Your task to perform on an android device: How much does the LG TV cost? Image 0: 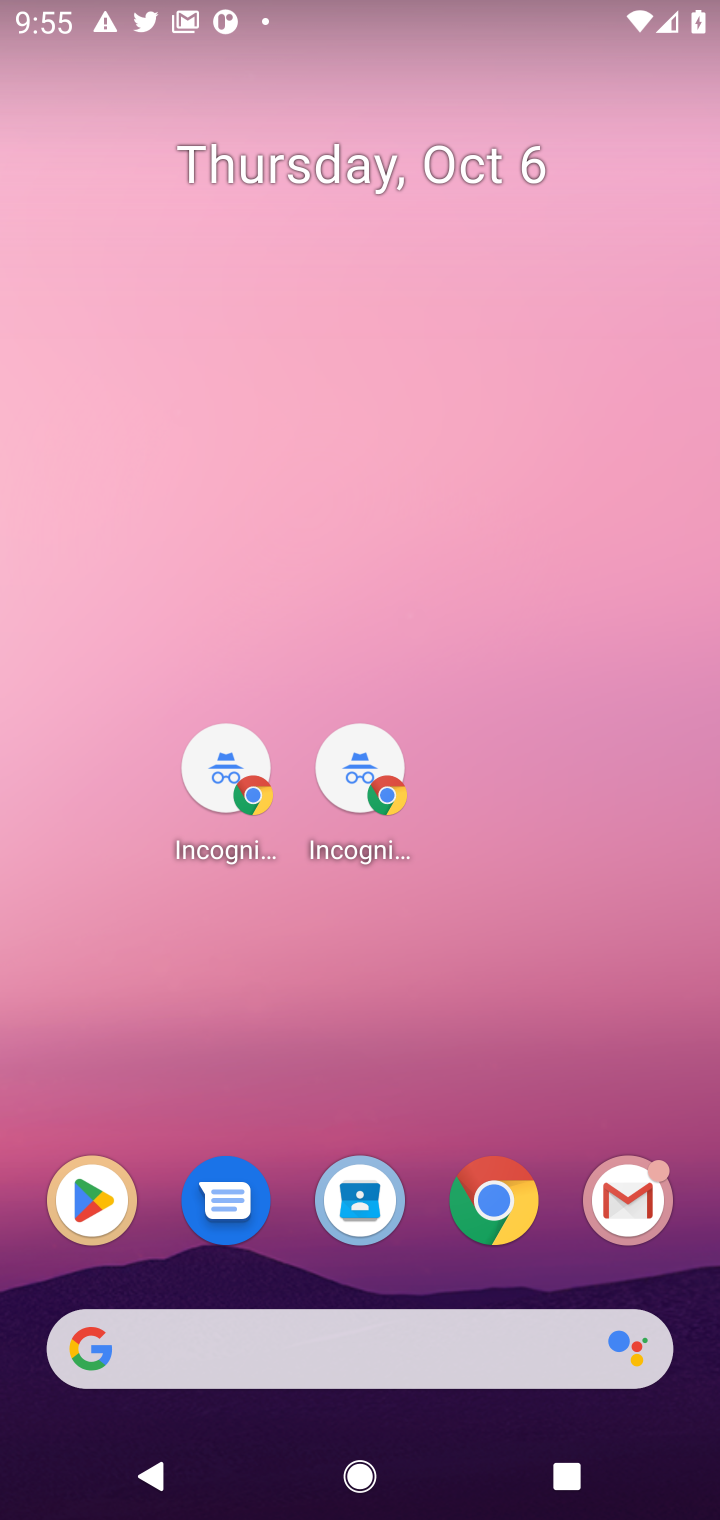
Step 0: press back button
Your task to perform on an android device: How much does the LG TV cost? Image 1: 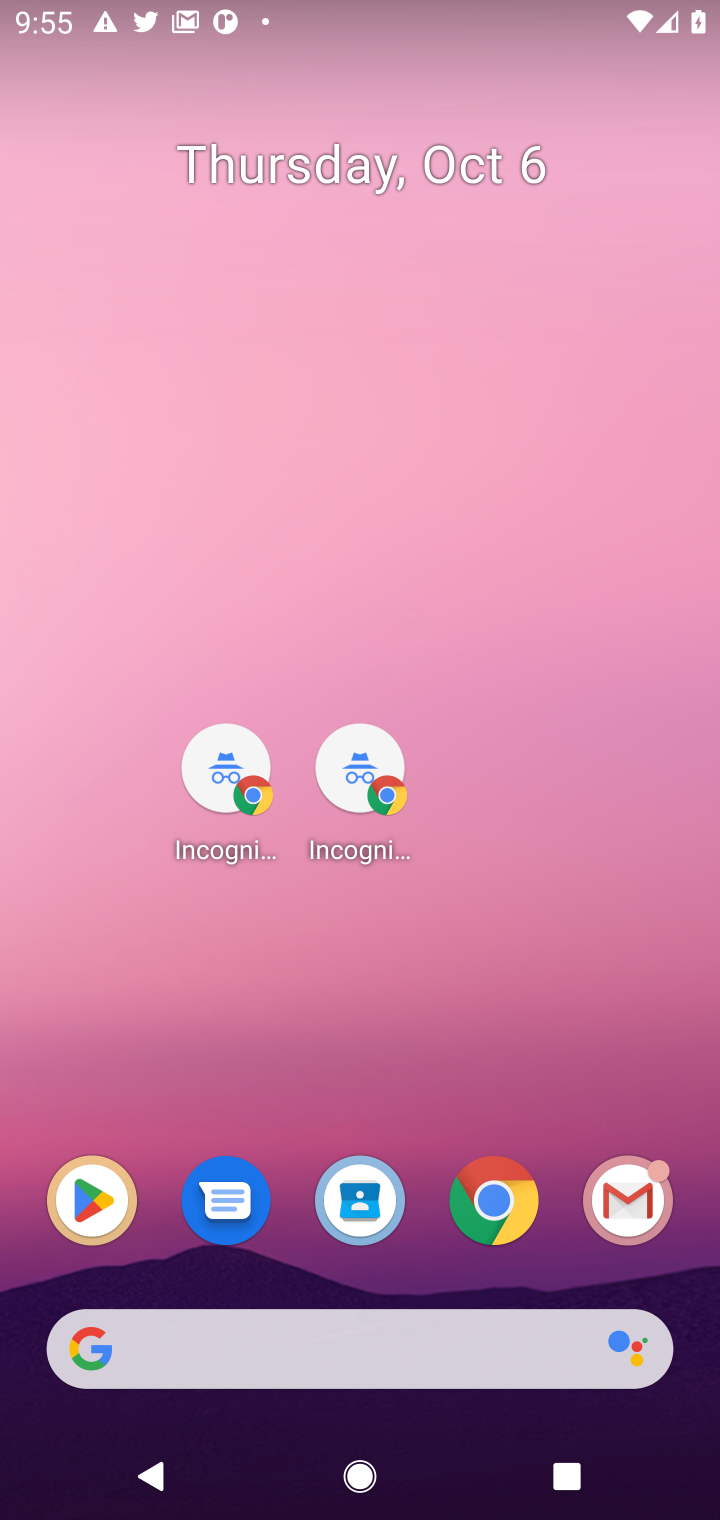
Step 1: press home button
Your task to perform on an android device: How much does the LG TV cost? Image 2: 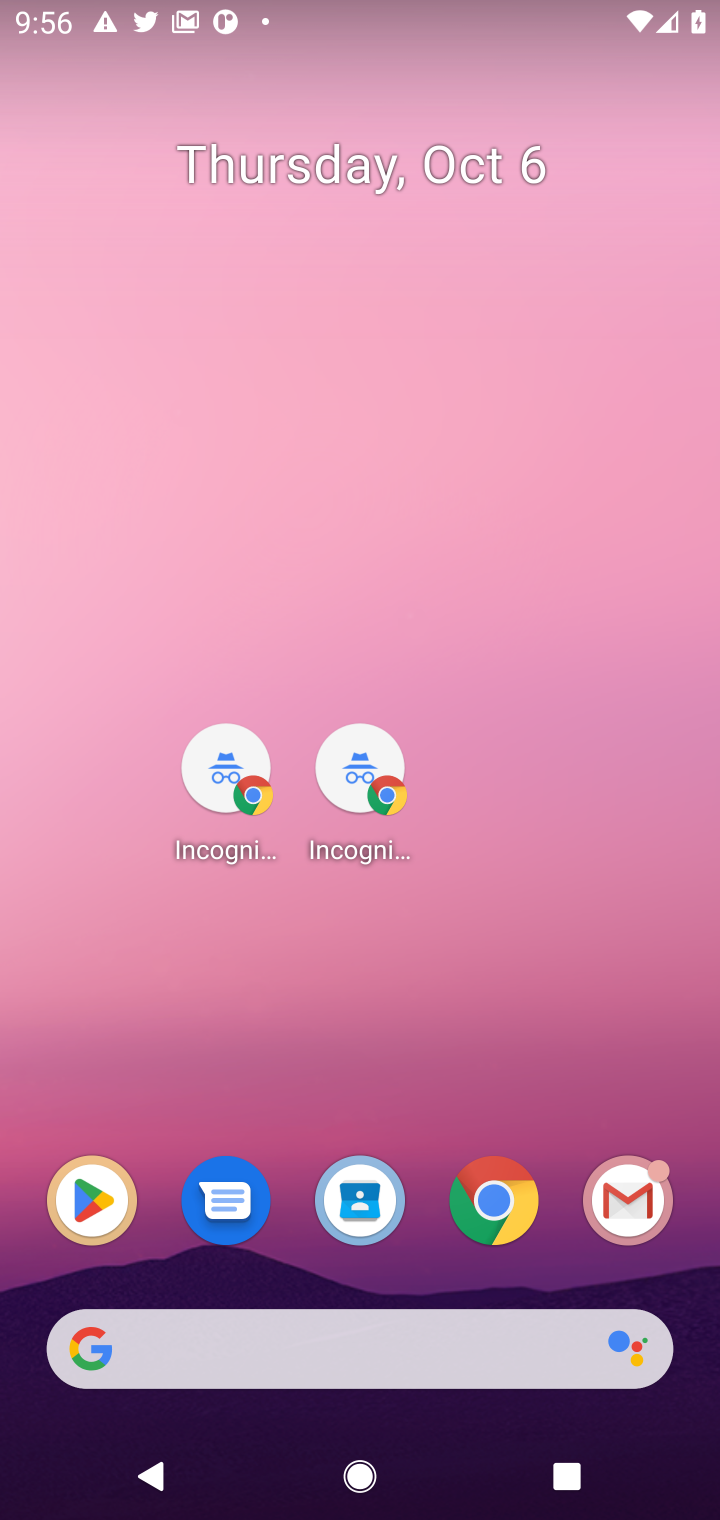
Step 2: click (487, 1202)
Your task to perform on an android device: How much does the LG TV cost? Image 3: 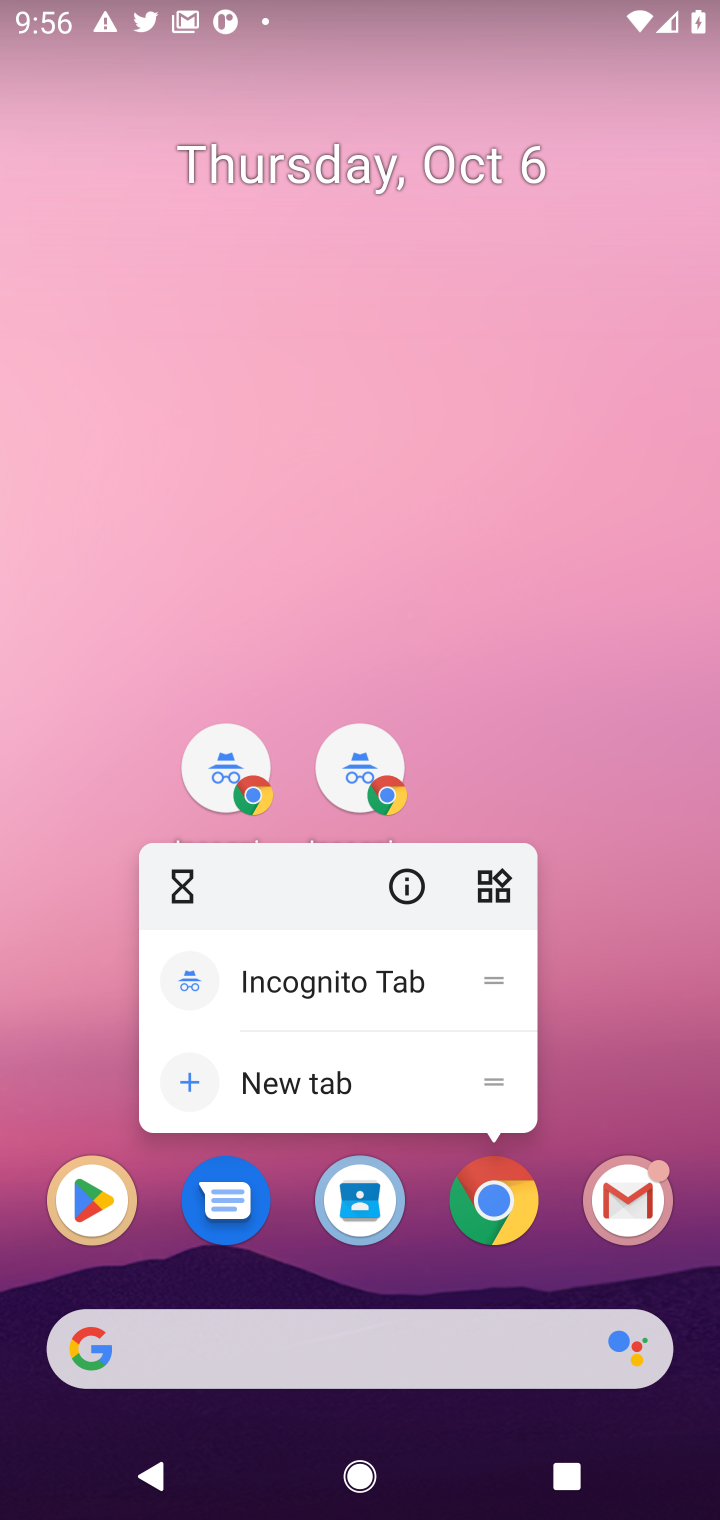
Step 3: press back button
Your task to perform on an android device: How much does the LG TV cost? Image 4: 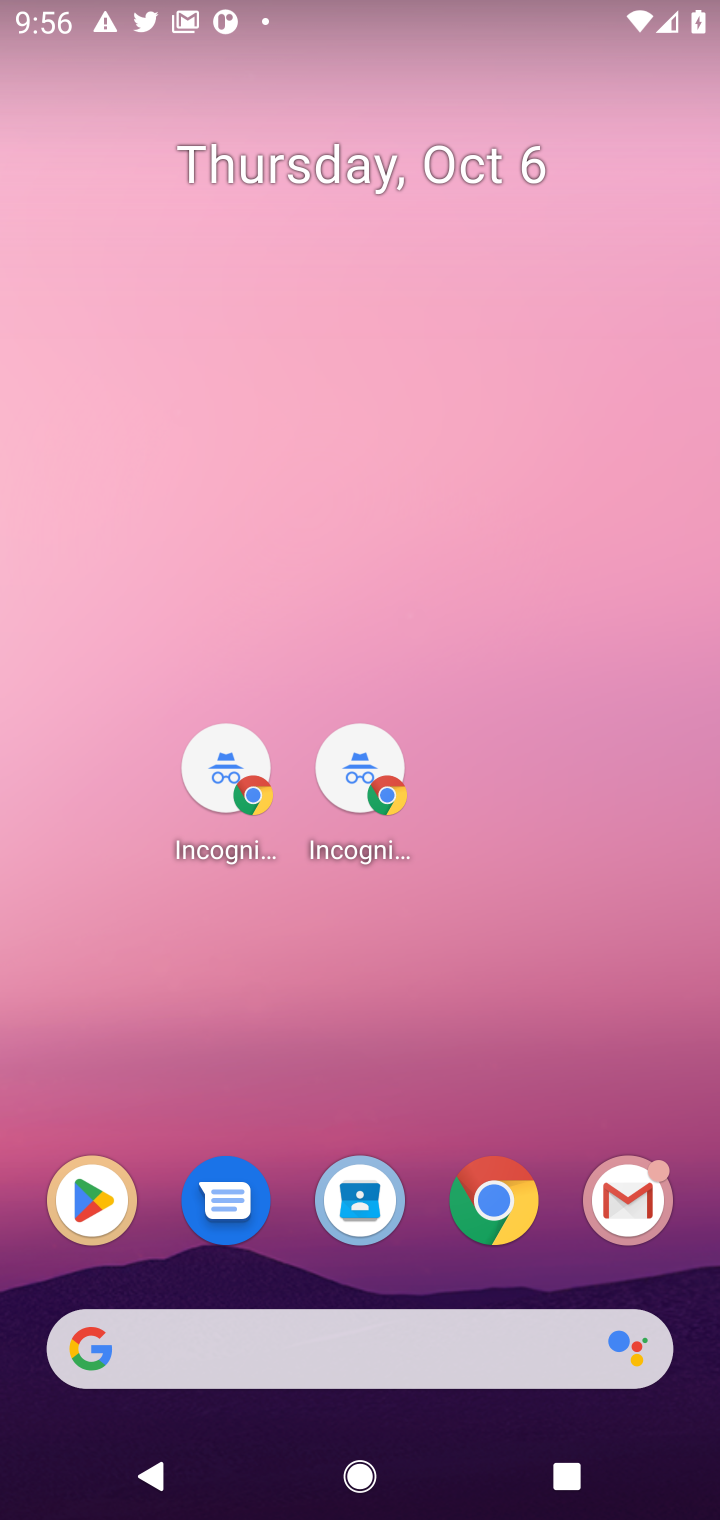
Step 4: press home button
Your task to perform on an android device: How much does the LG TV cost? Image 5: 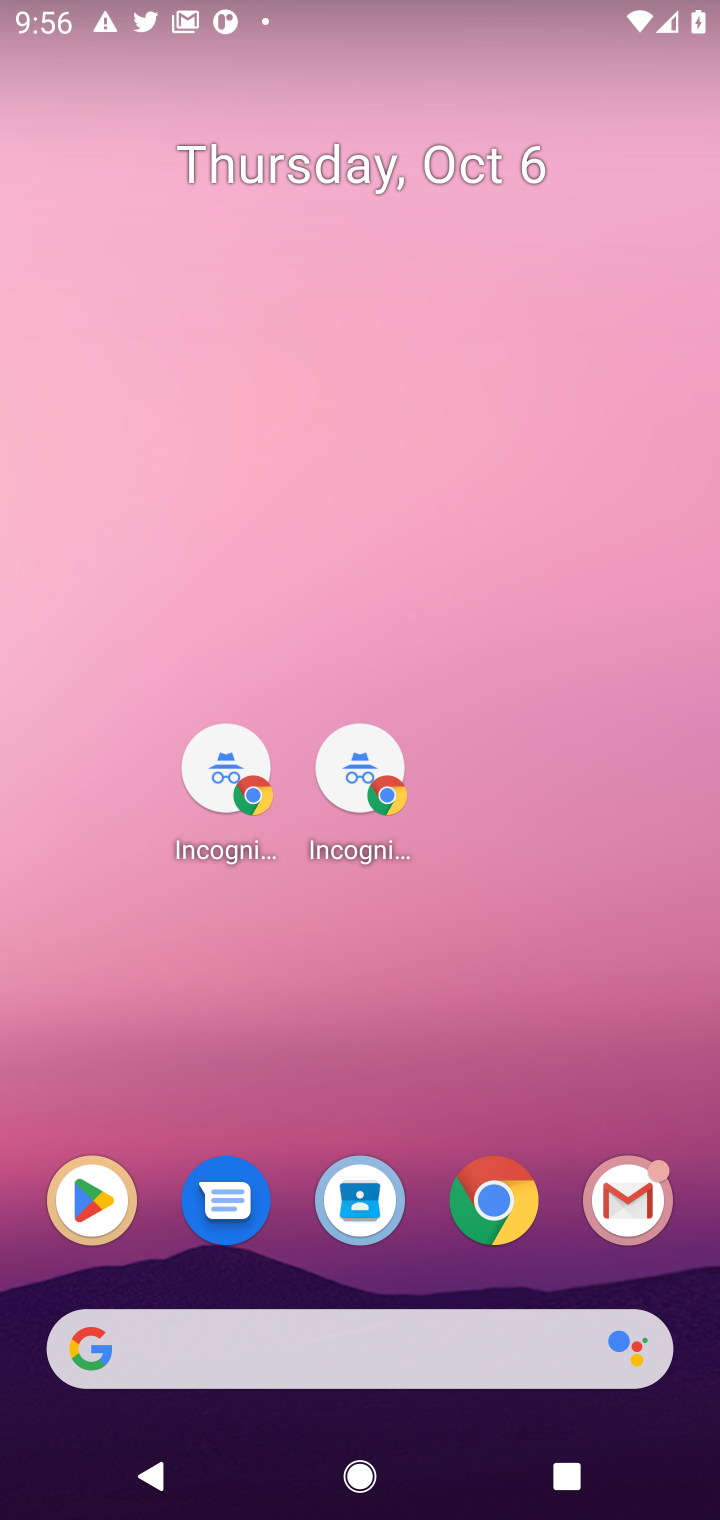
Step 5: press home button
Your task to perform on an android device: How much does the LG TV cost? Image 6: 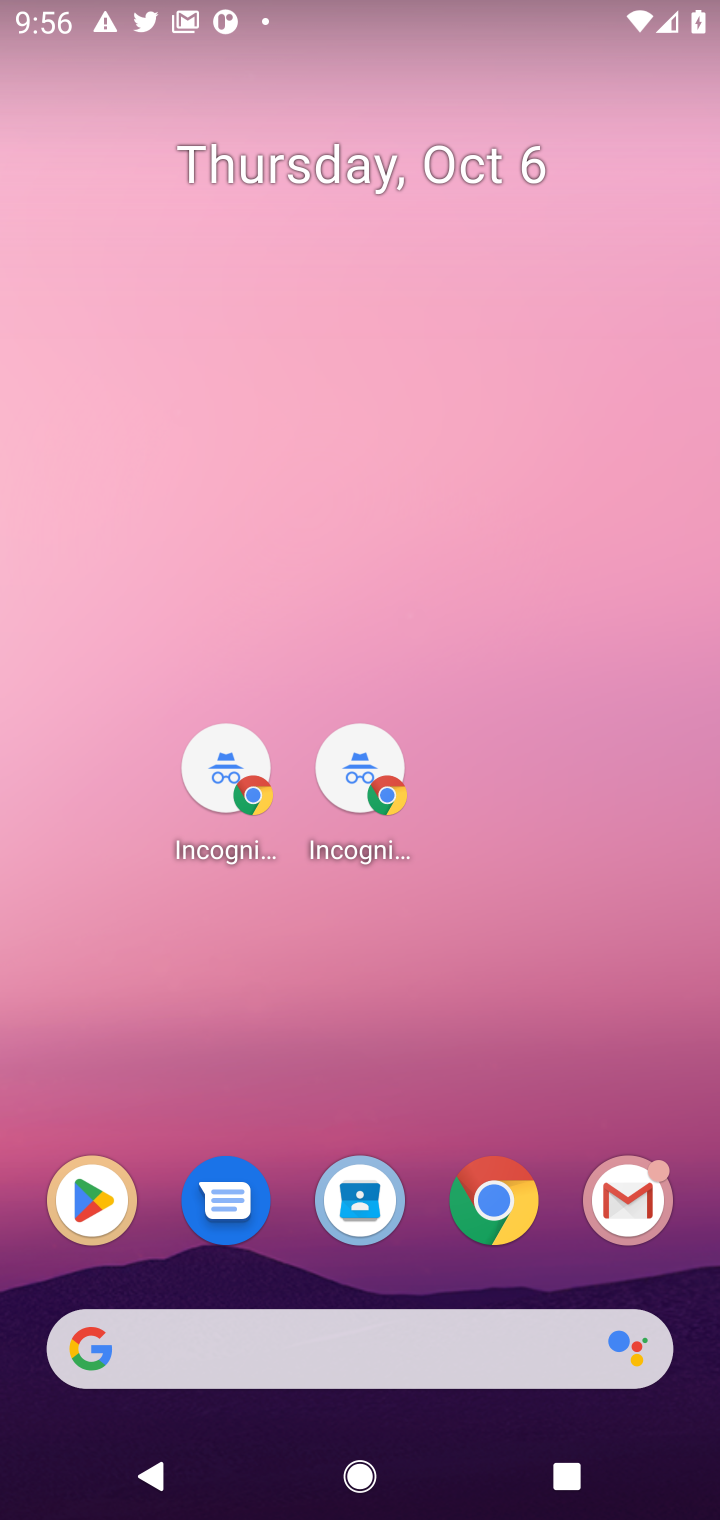
Step 6: press back button
Your task to perform on an android device: How much does the LG TV cost? Image 7: 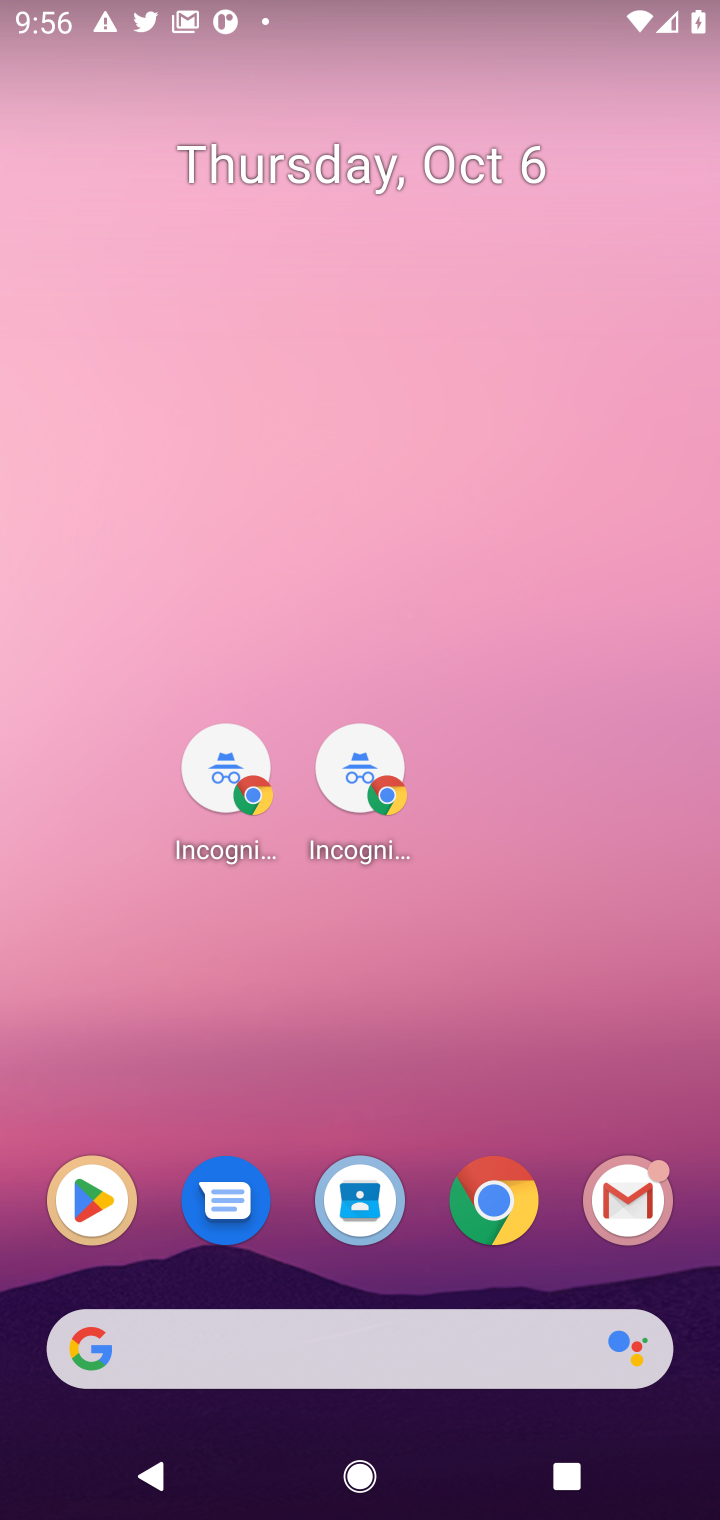
Step 7: click (464, 1218)
Your task to perform on an android device: How much does the LG TV cost? Image 8: 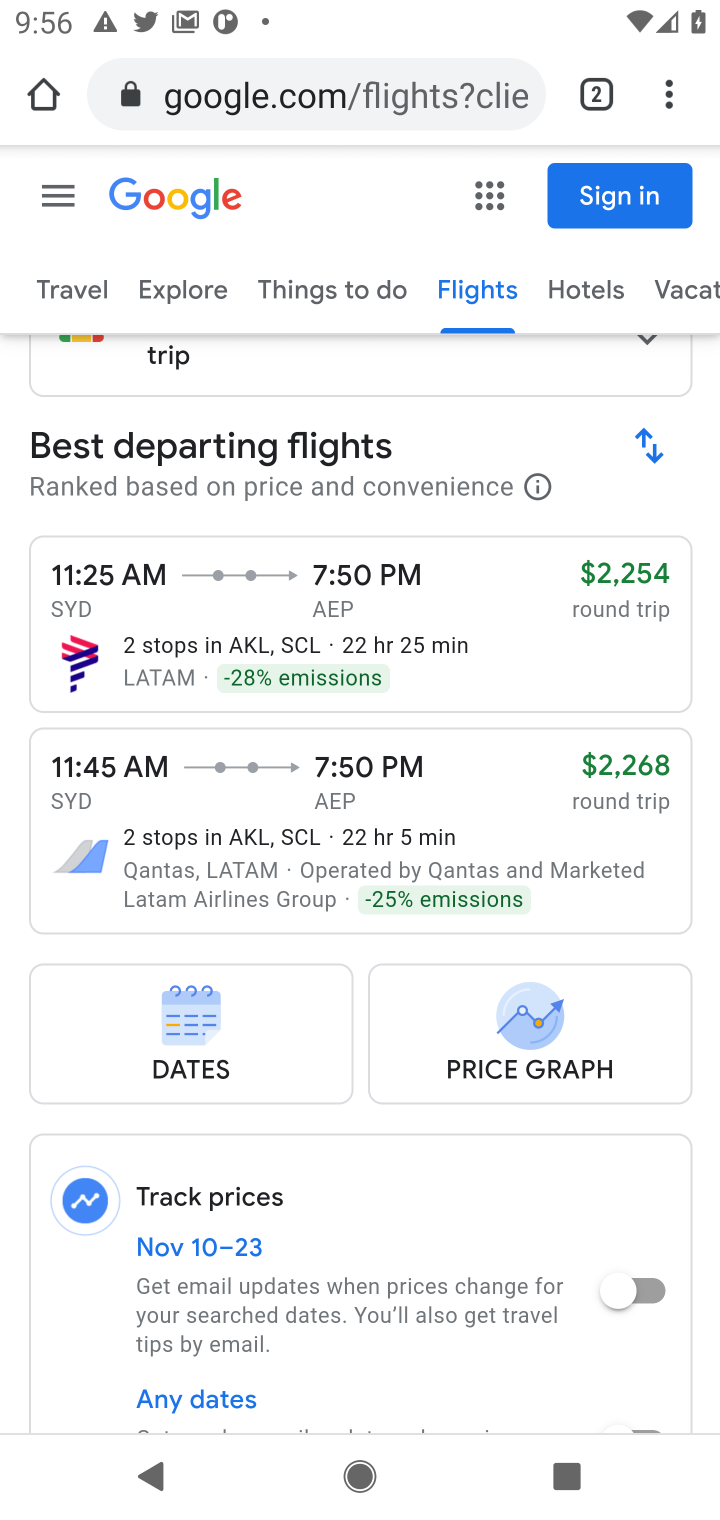
Step 8: click (429, 88)
Your task to perform on an android device: How much does the LG TV cost? Image 9: 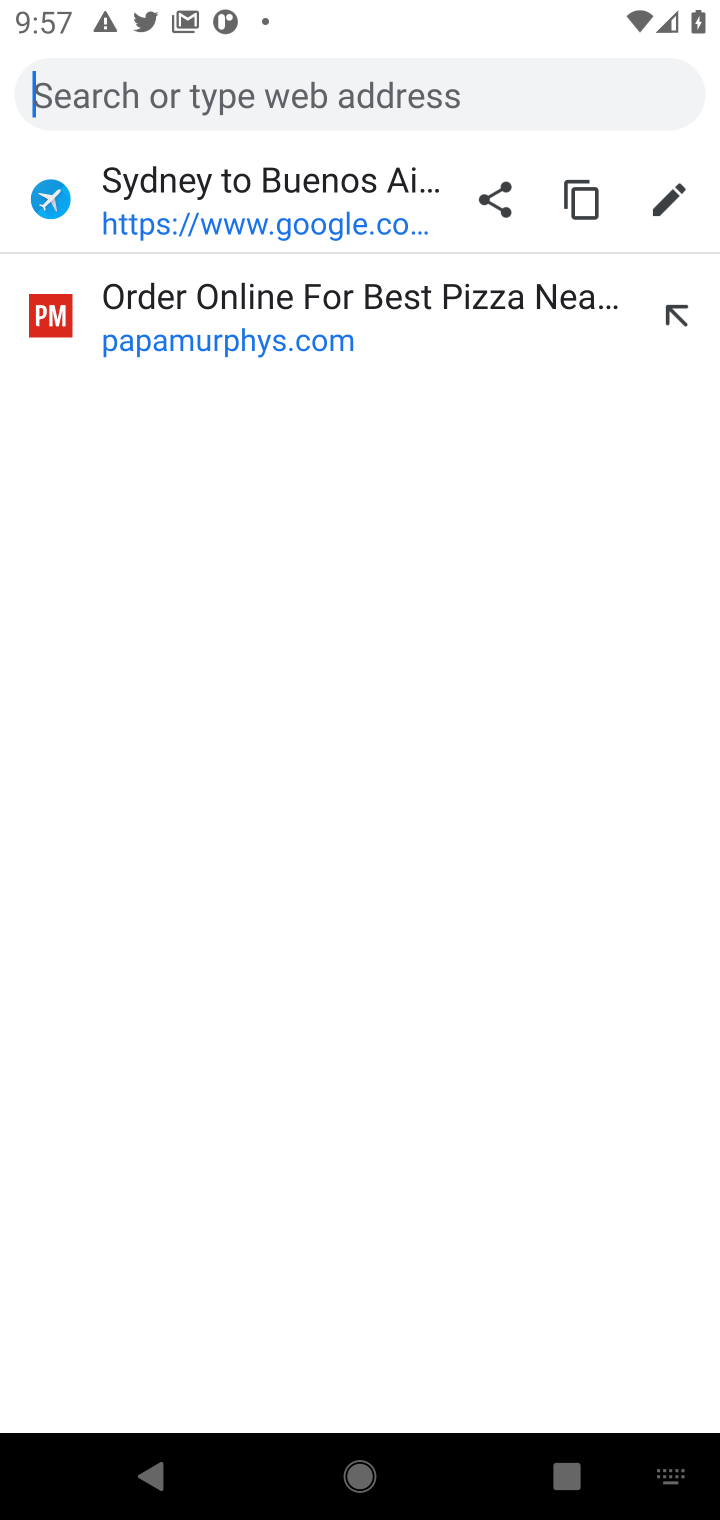
Step 9: type "lg tv cost"
Your task to perform on an android device: How much does the LG TV cost? Image 10: 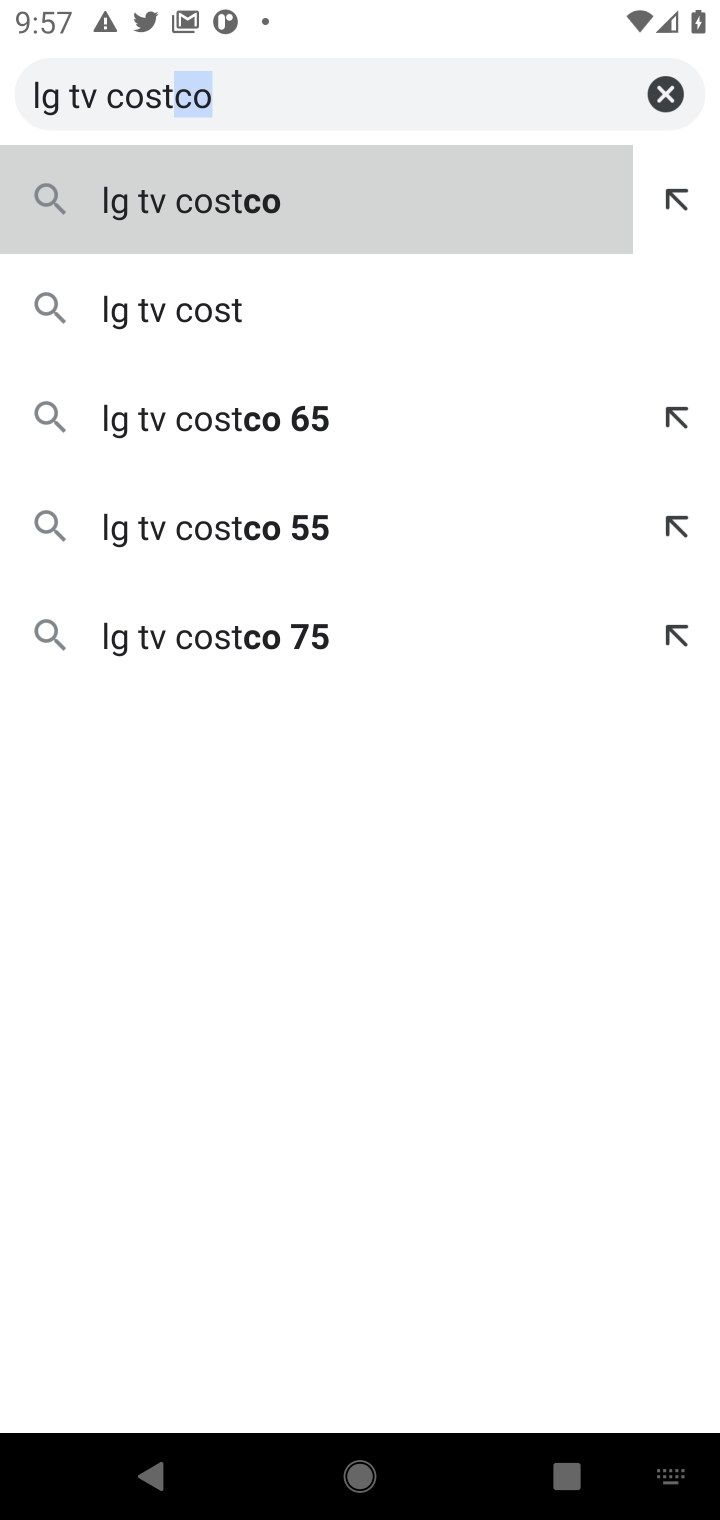
Step 10: click (190, 305)
Your task to perform on an android device: How much does the LG TV cost? Image 11: 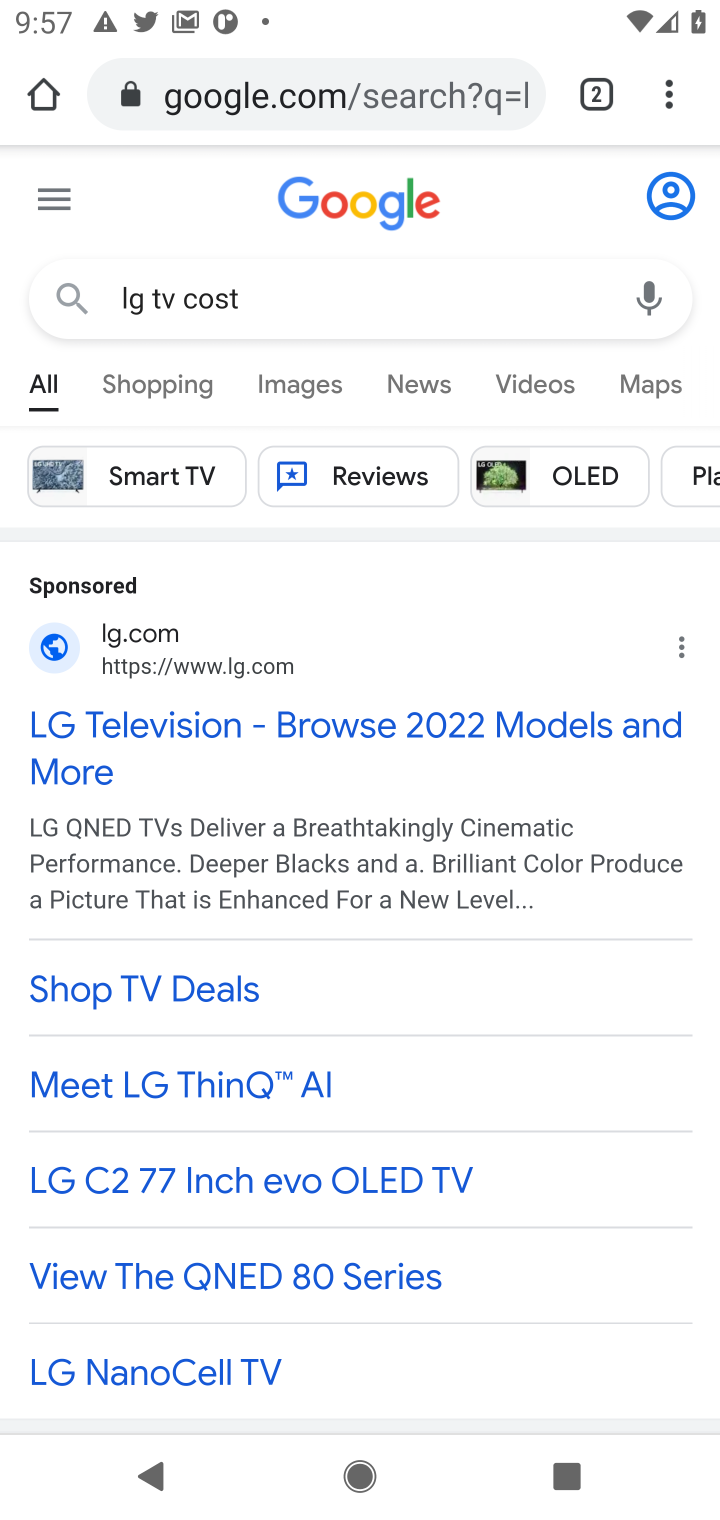
Step 11: drag from (549, 1173) to (514, 753)
Your task to perform on an android device: How much does the LG TV cost? Image 12: 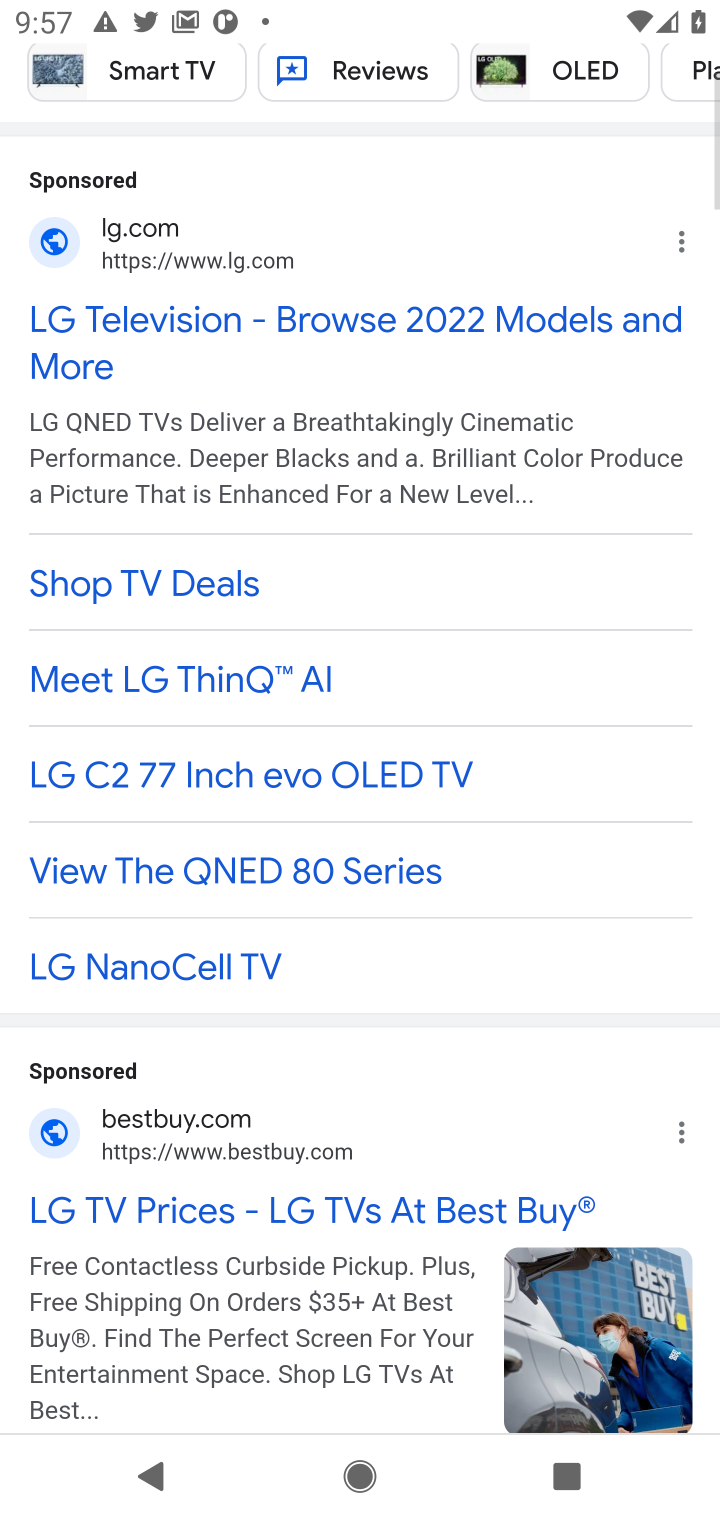
Step 12: drag from (547, 909) to (550, 603)
Your task to perform on an android device: How much does the LG TV cost? Image 13: 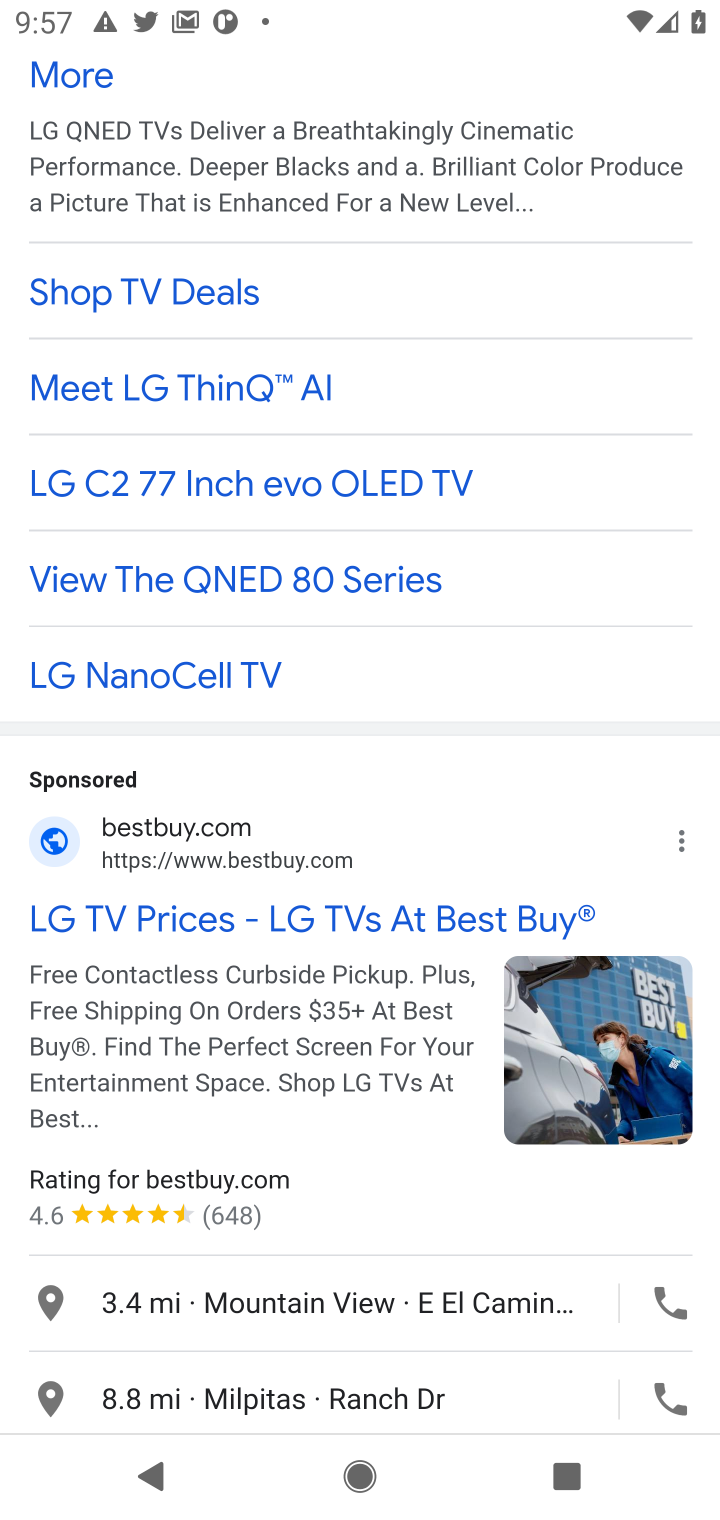
Step 13: click (168, 916)
Your task to perform on an android device: How much does the LG TV cost? Image 14: 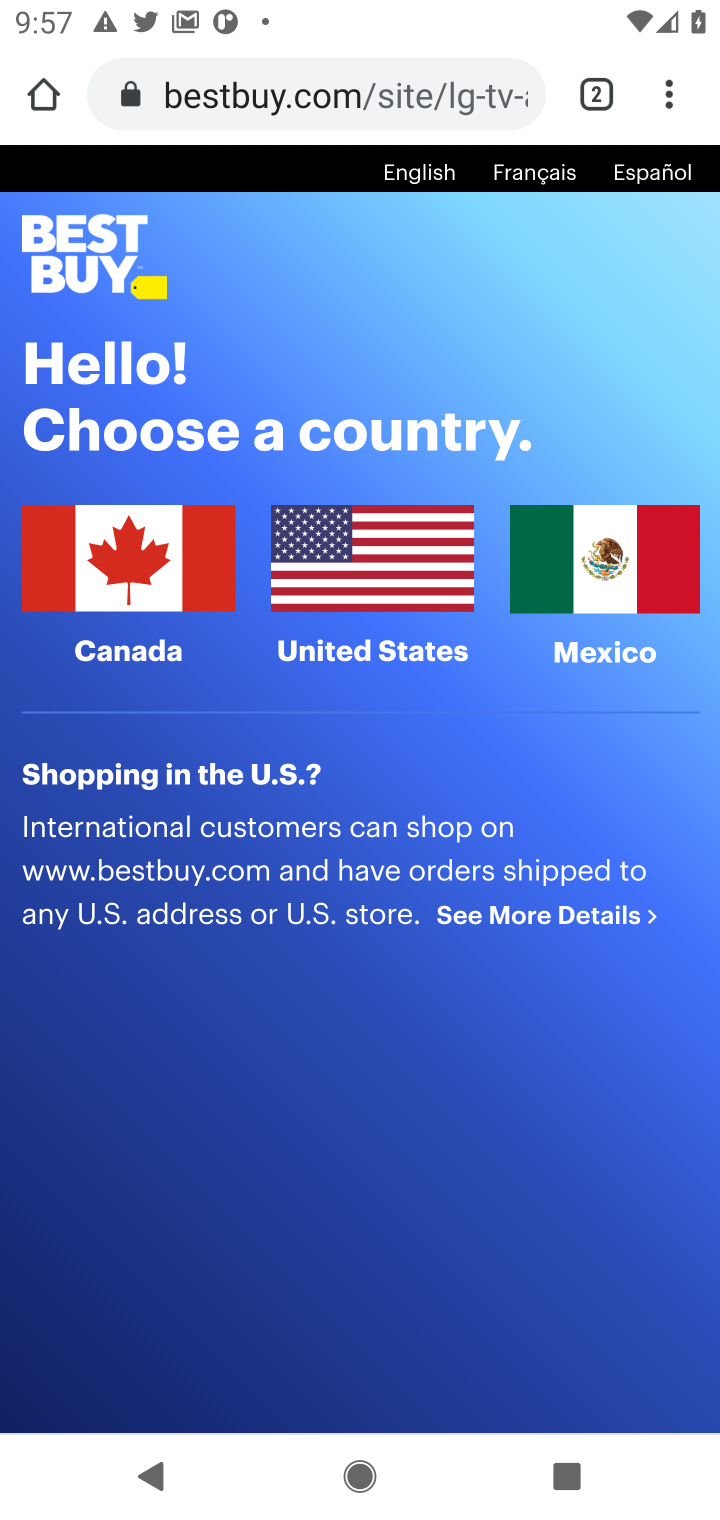
Step 14: click (310, 565)
Your task to perform on an android device: How much does the LG TV cost? Image 15: 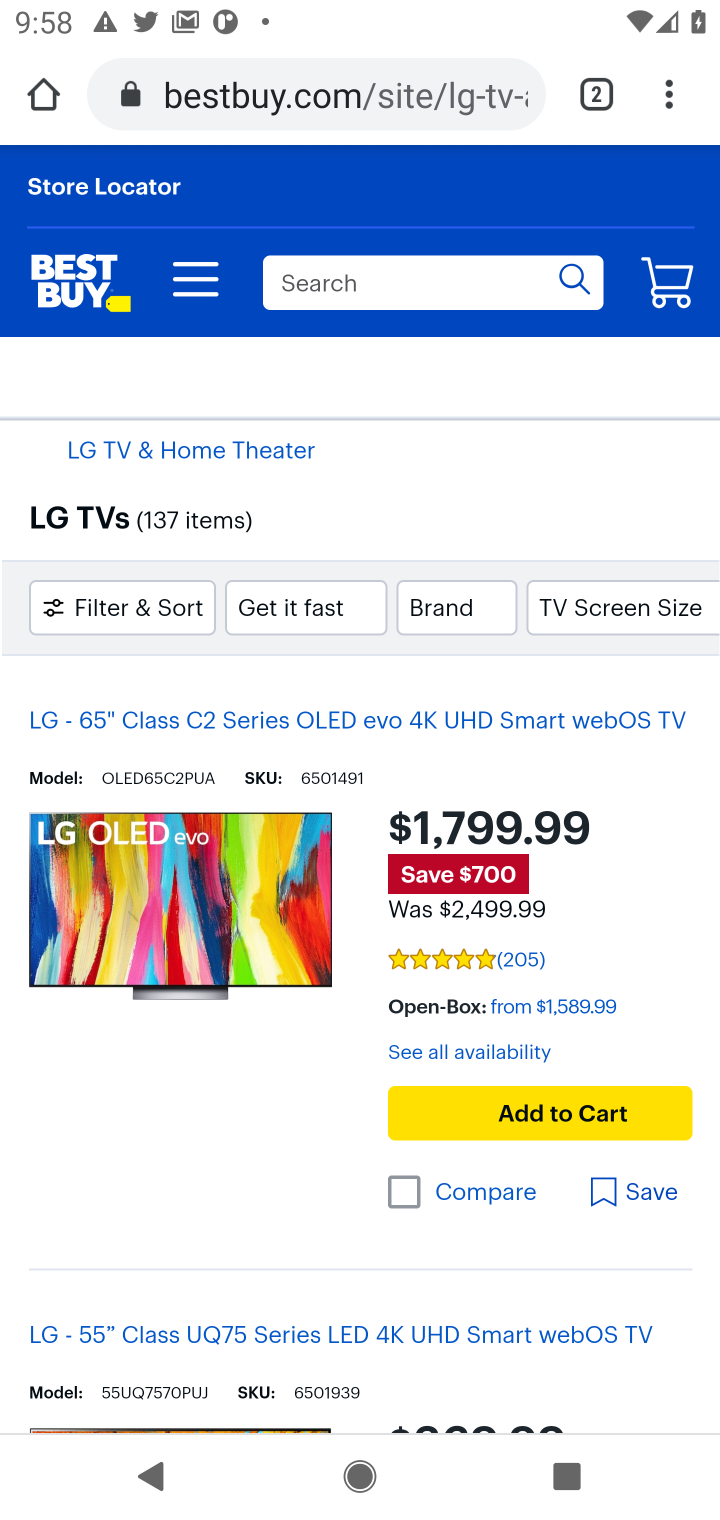
Step 15: drag from (195, 1050) to (312, 430)
Your task to perform on an android device: How much does the LG TV cost? Image 16: 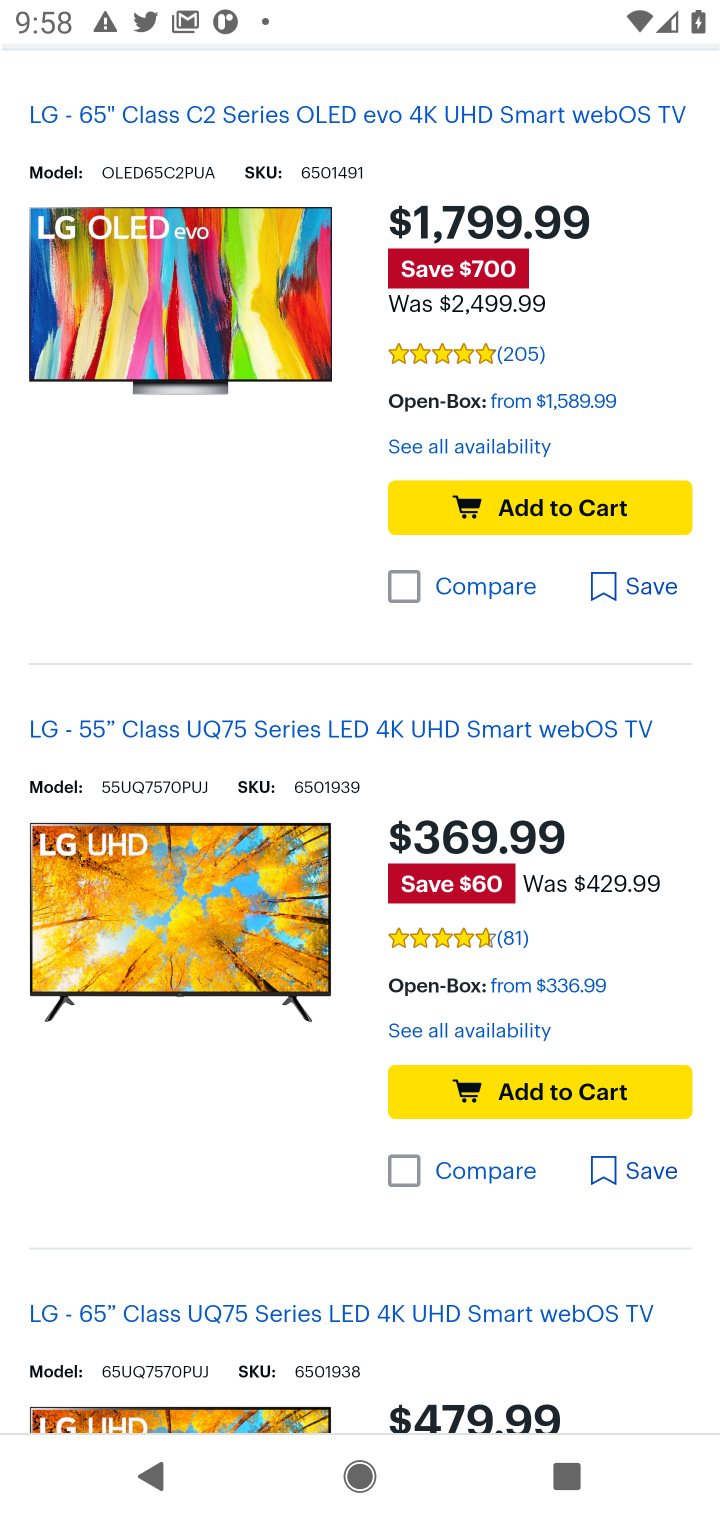
Step 16: drag from (219, 1058) to (265, 646)
Your task to perform on an android device: How much does the LG TV cost? Image 17: 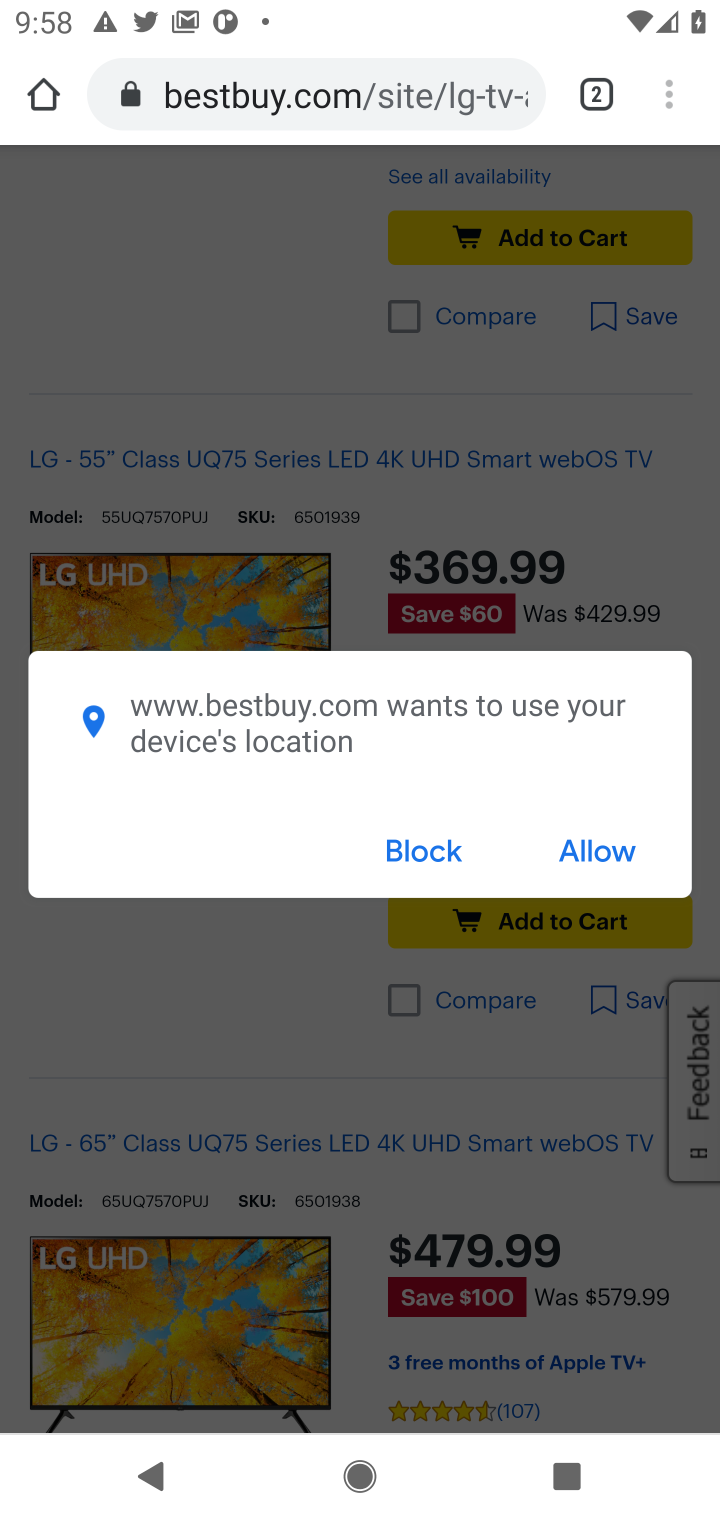
Step 17: click (621, 850)
Your task to perform on an android device: How much does the LG TV cost? Image 18: 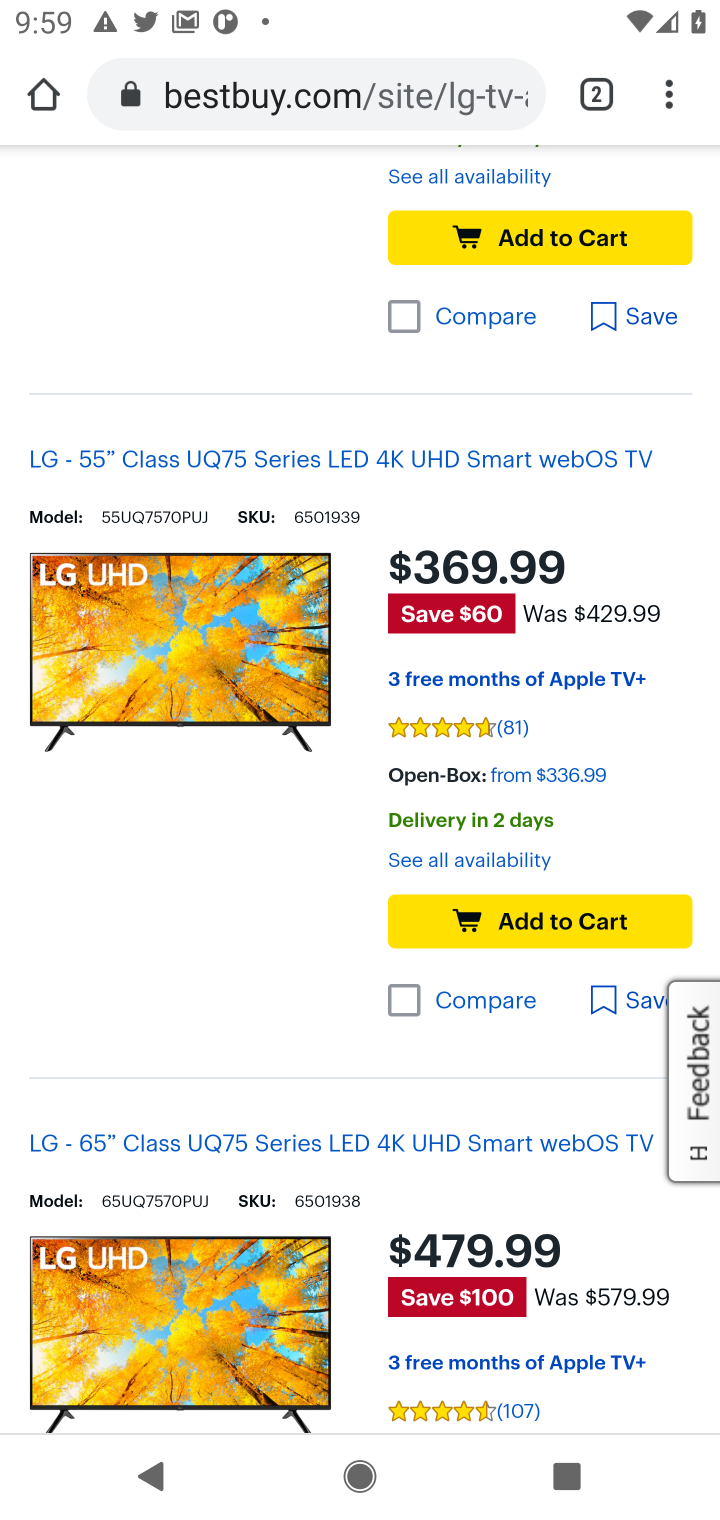
Step 18: task complete